Your task to perform on an android device: Search for pizza restaurants on Maps Image 0: 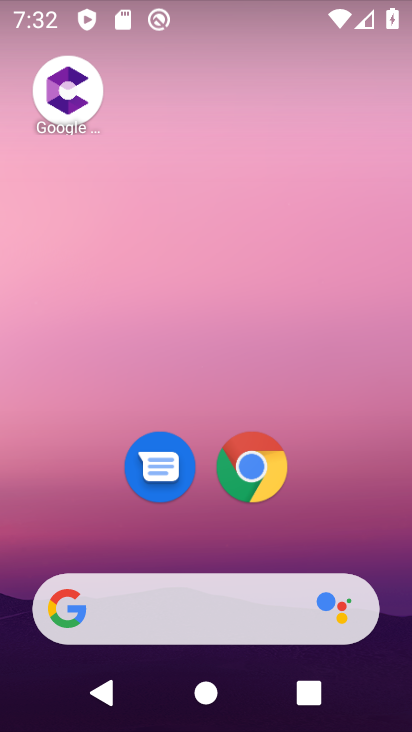
Step 0: drag from (47, 437) to (195, 50)
Your task to perform on an android device: Search for pizza restaurants on Maps Image 1: 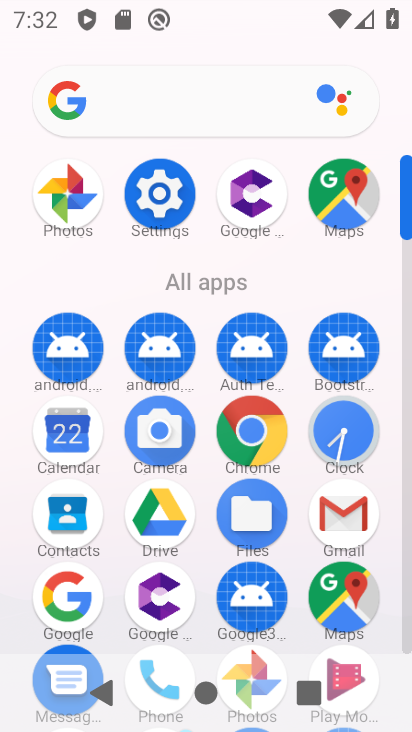
Step 1: click (338, 605)
Your task to perform on an android device: Search for pizza restaurants on Maps Image 2: 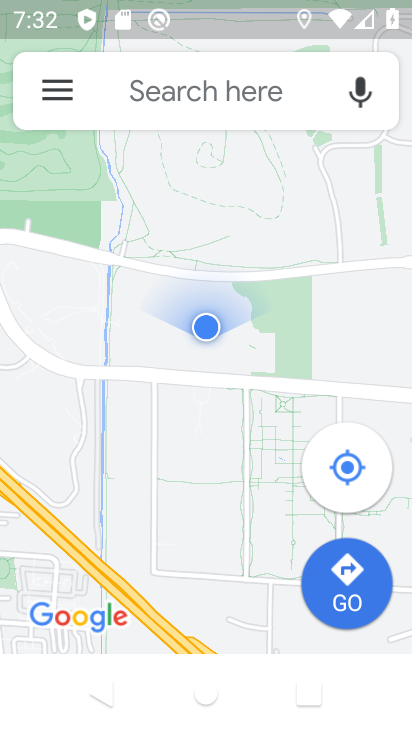
Step 2: click (123, 77)
Your task to perform on an android device: Search for pizza restaurants on Maps Image 3: 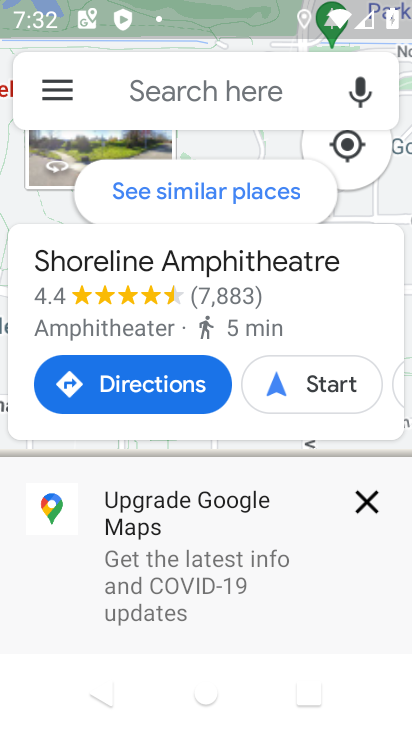
Step 3: click (355, 497)
Your task to perform on an android device: Search for pizza restaurants on Maps Image 4: 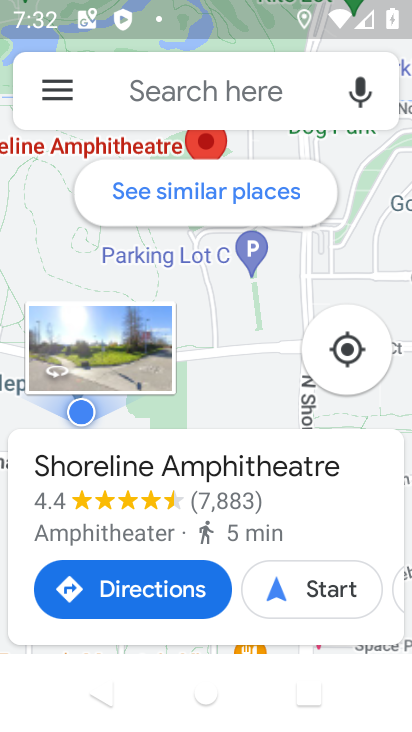
Step 4: click (163, 96)
Your task to perform on an android device: Search for pizza restaurants on Maps Image 5: 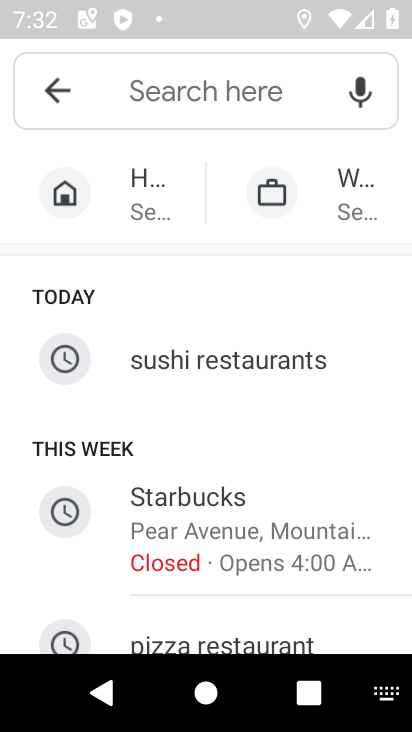
Step 5: drag from (5, 555) to (245, 148)
Your task to perform on an android device: Search for pizza restaurants on Maps Image 6: 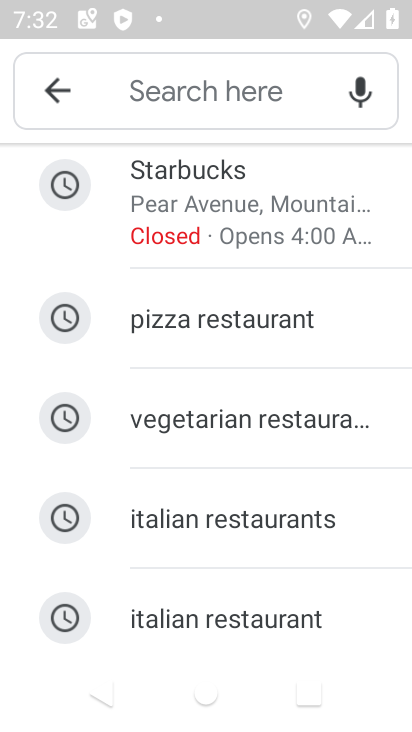
Step 6: click (194, 320)
Your task to perform on an android device: Search for pizza restaurants on Maps Image 7: 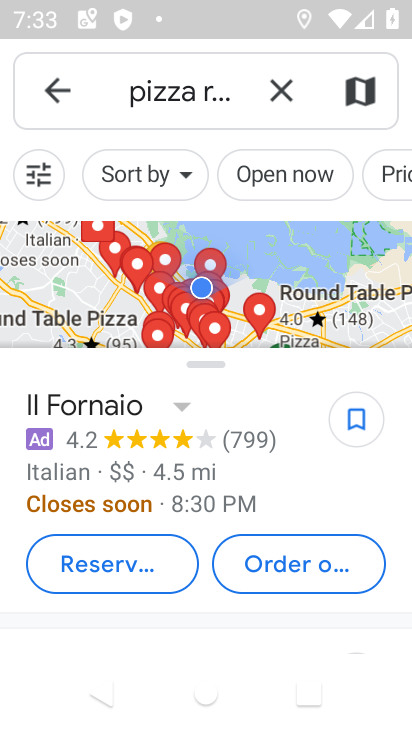
Step 7: task complete